Your task to perform on an android device: turn off location history Image 0: 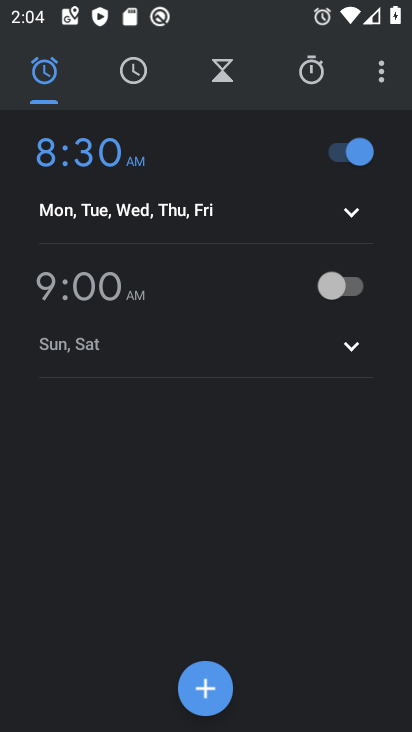
Step 0: press home button
Your task to perform on an android device: turn off location history Image 1: 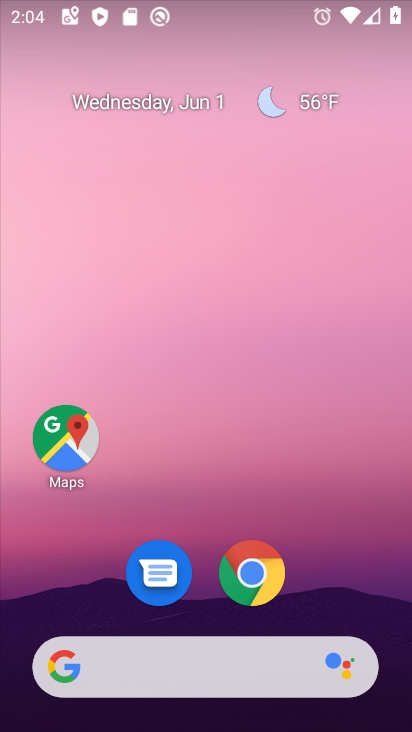
Step 1: drag from (362, 552) to (262, 0)
Your task to perform on an android device: turn off location history Image 2: 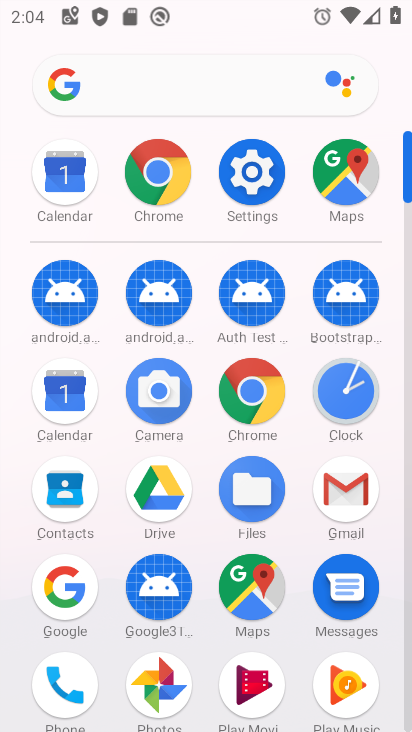
Step 2: click (265, 187)
Your task to perform on an android device: turn off location history Image 3: 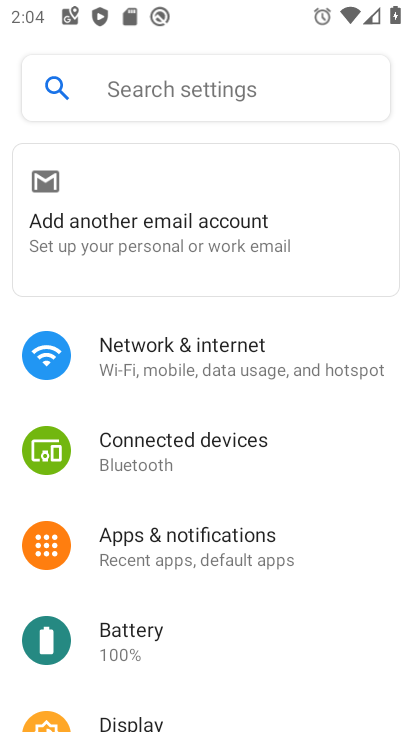
Step 3: drag from (266, 555) to (230, 250)
Your task to perform on an android device: turn off location history Image 4: 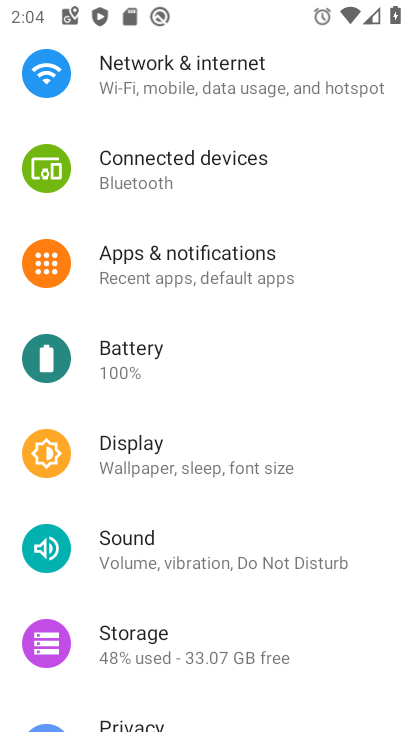
Step 4: drag from (247, 568) to (231, 183)
Your task to perform on an android device: turn off location history Image 5: 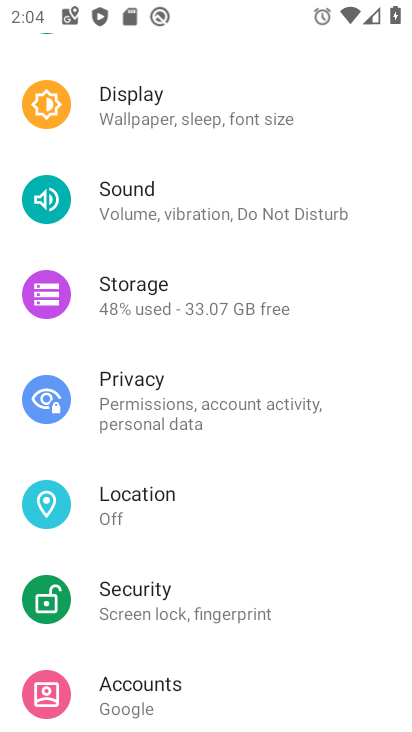
Step 5: click (177, 503)
Your task to perform on an android device: turn off location history Image 6: 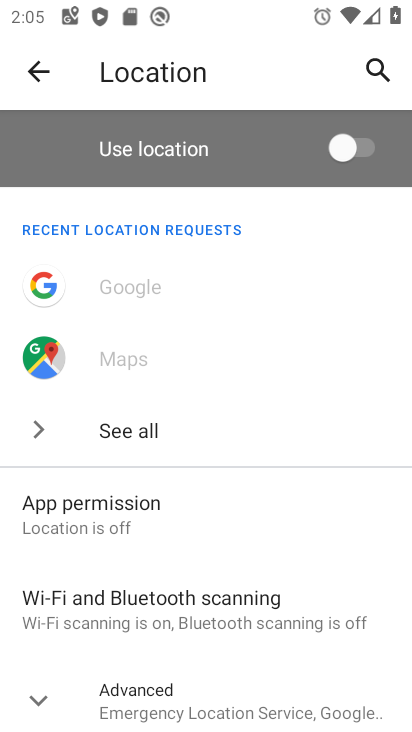
Step 6: drag from (183, 625) to (175, 209)
Your task to perform on an android device: turn off location history Image 7: 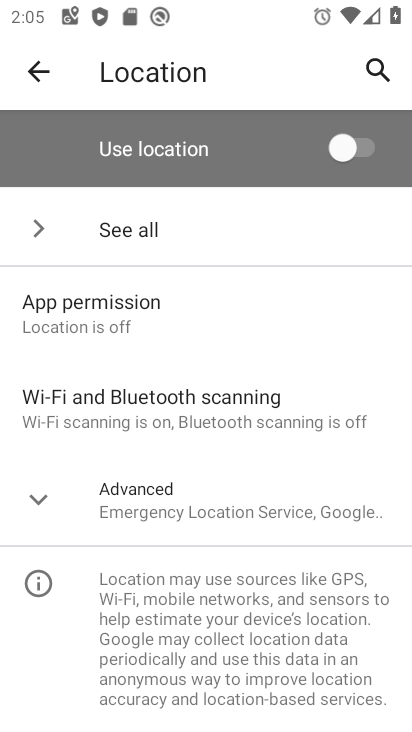
Step 7: click (161, 508)
Your task to perform on an android device: turn off location history Image 8: 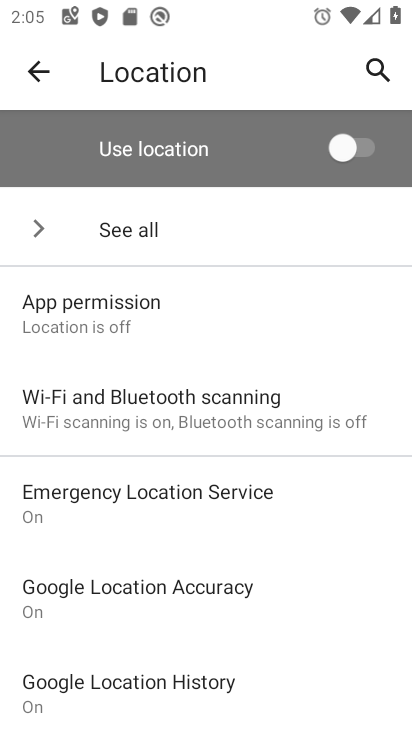
Step 8: drag from (209, 623) to (277, 287)
Your task to perform on an android device: turn off location history Image 9: 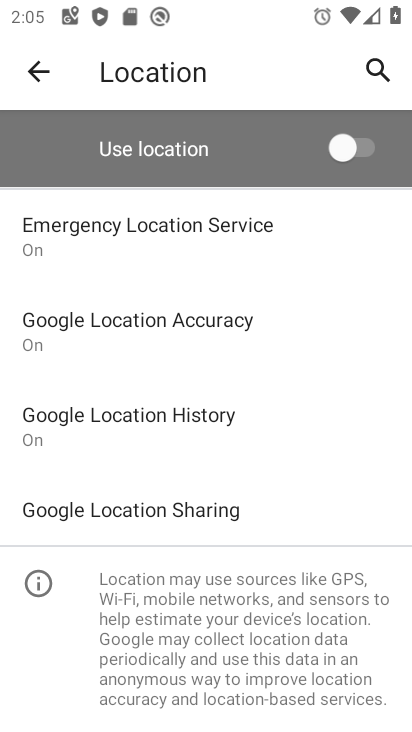
Step 9: click (193, 416)
Your task to perform on an android device: turn off location history Image 10: 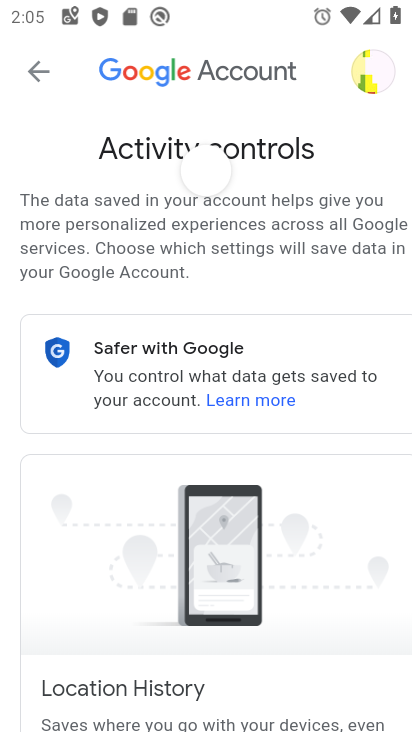
Step 10: task complete